Your task to perform on an android device: Go to eBay Image 0: 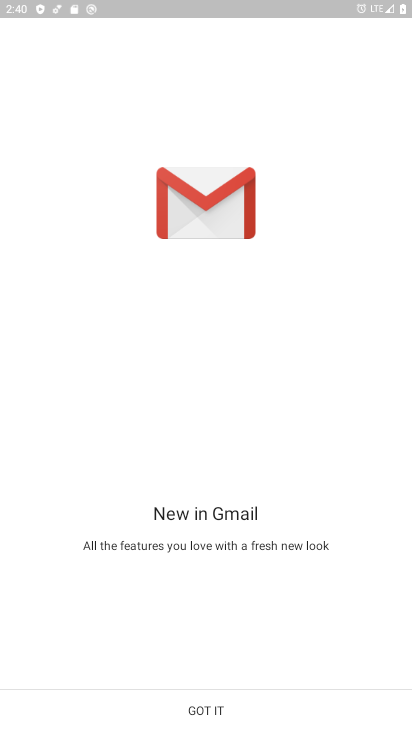
Step 0: press home button
Your task to perform on an android device: Go to eBay Image 1: 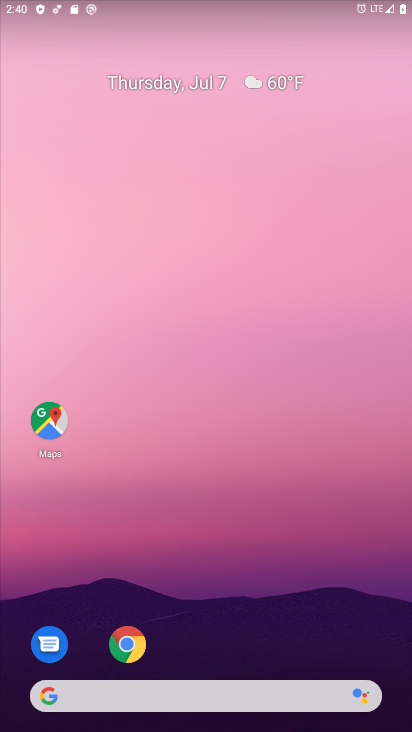
Step 1: click (134, 653)
Your task to perform on an android device: Go to eBay Image 2: 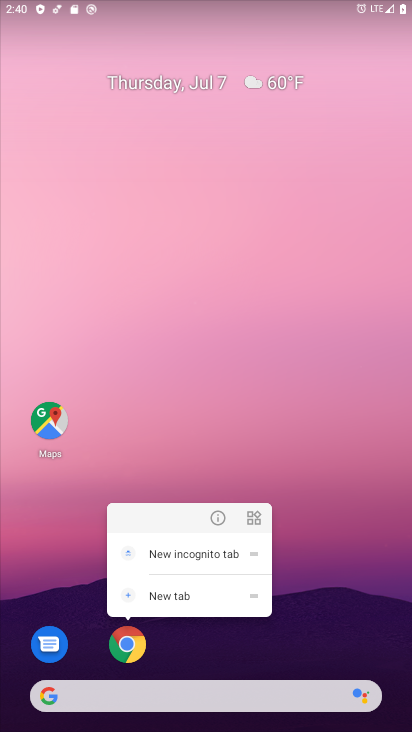
Step 2: click (122, 657)
Your task to perform on an android device: Go to eBay Image 3: 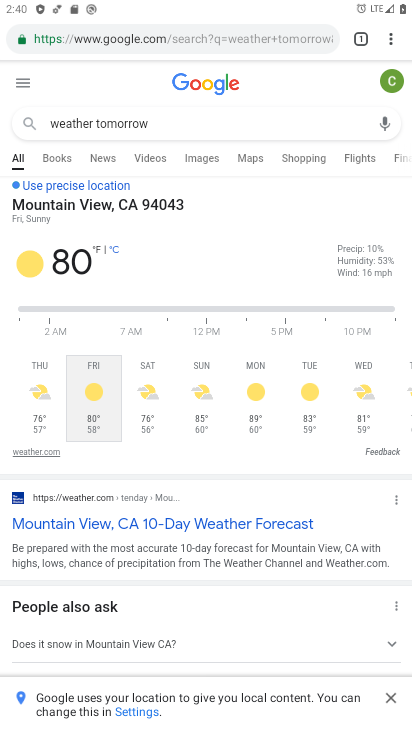
Step 3: click (228, 42)
Your task to perform on an android device: Go to eBay Image 4: 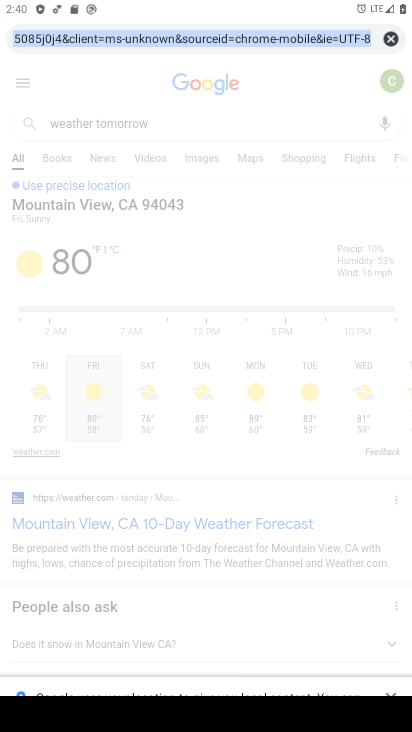
Step 4: type "ebay"
Your task to perform on an android device: Go to eBay Image 5: 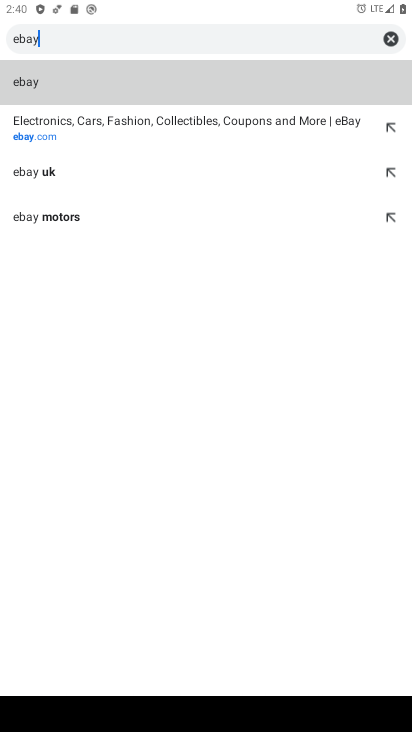
Step 5: click (57, 136)
Your task to perform on an android device: Go to eBay Image 6: 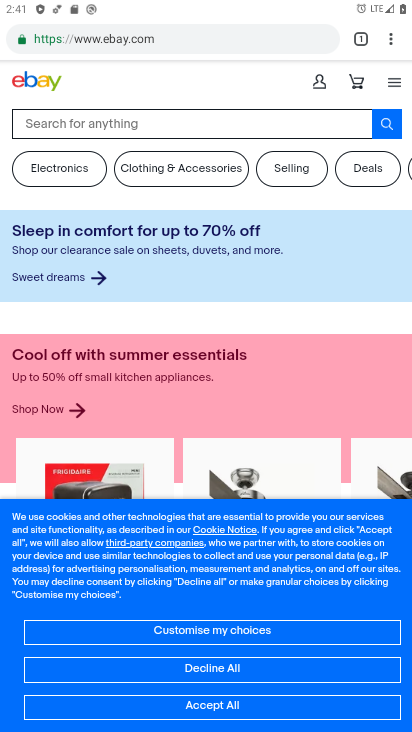
Step 6: task complete